Your task to perform on an android device: Open Reddit.com Image 0: 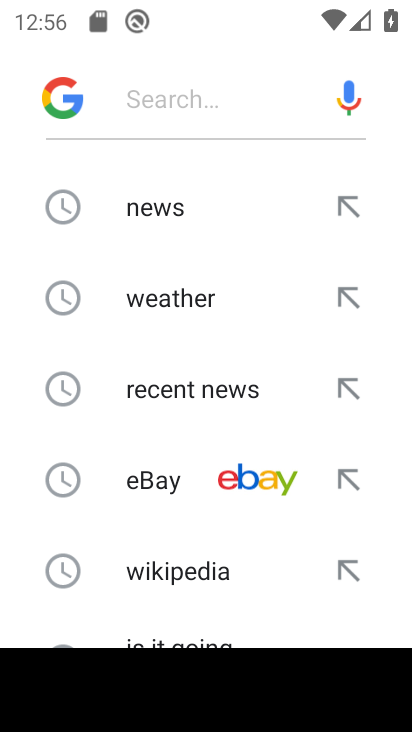
Step 0: press home button
Your task to perform on an android device: Open Reddit.com Image 1: 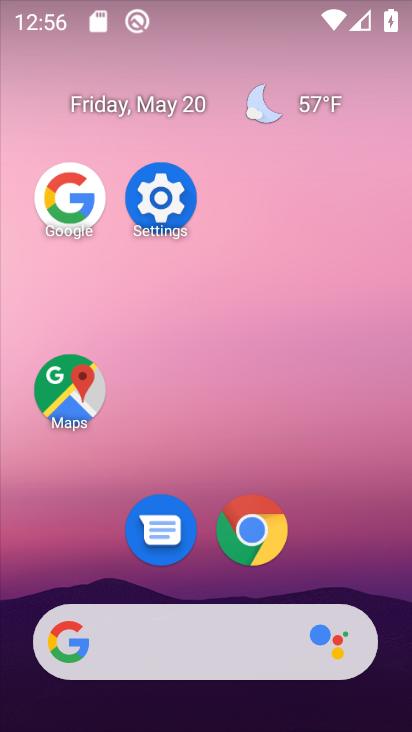
Step 1: click (248, 547)
Your task to perform on an android device: Open Reddit.com Image 2: 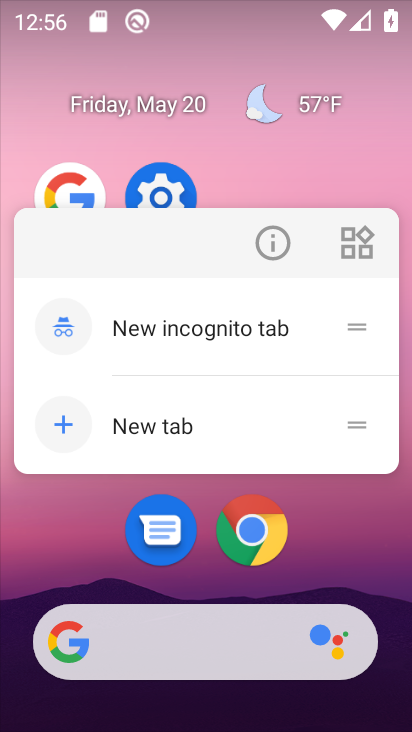
Step 2: click (256, 506)
Your task to perform on an android device: Open Reddit.com Image 3: 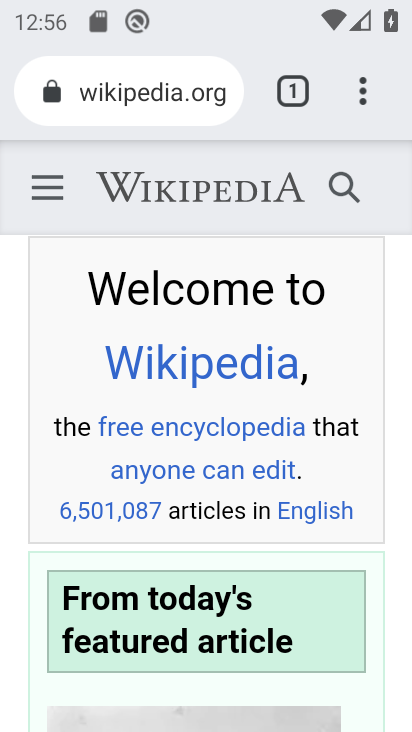
Step 3: click (288, 97)
Your task to perform on an android device: Open Reddit.com Image 4: 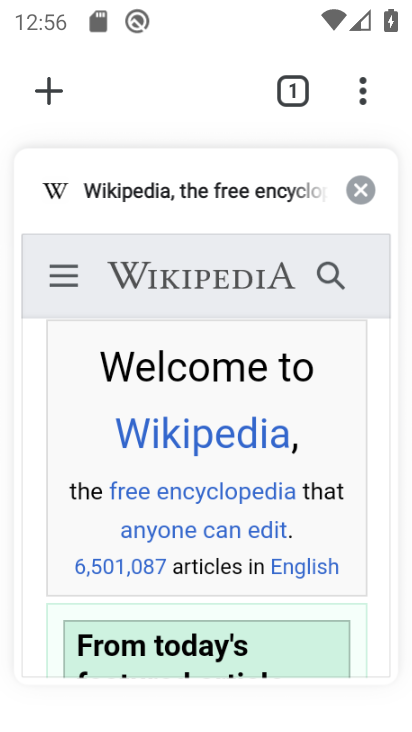
Step 4: click (58, 104)
Your task to perform on an android device: Open Reddit.com Image 5: 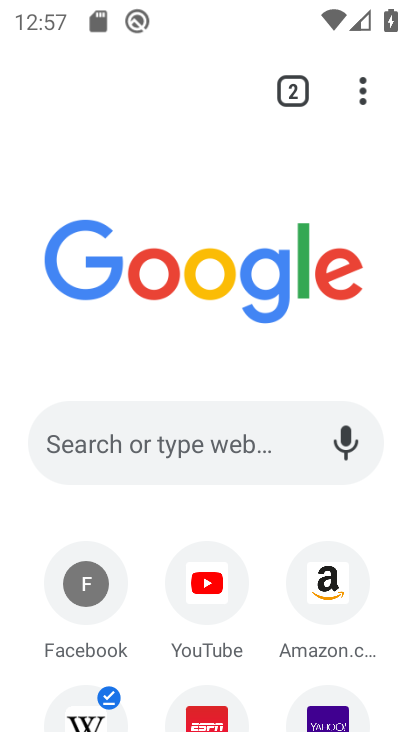
Step 5: click (178, 431)
Your task to perform on an android device: Open Reddit.com Image 6: 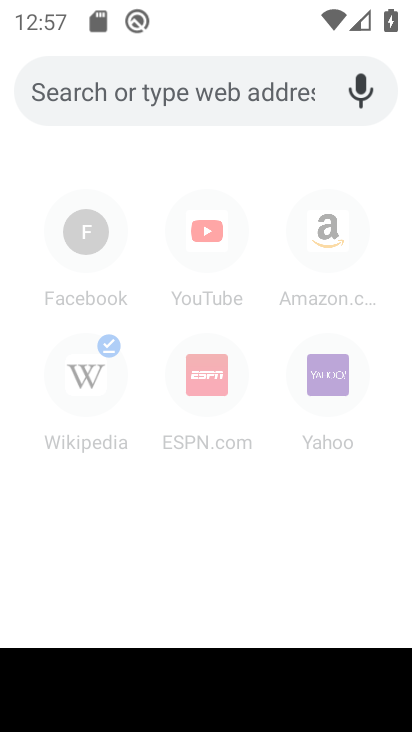
Step 6: type "reddit"
Your task to perform on an android device: Open Reddit.com Image 7: 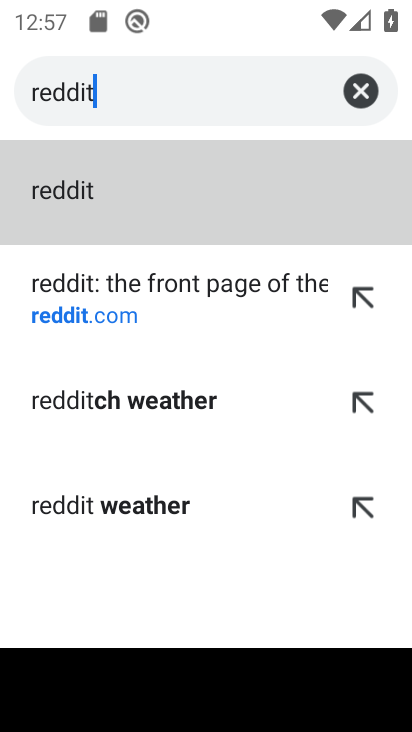
Step 7: click (122, 314)
Your task to perform on an android device: Open Reddit.com Image 8: 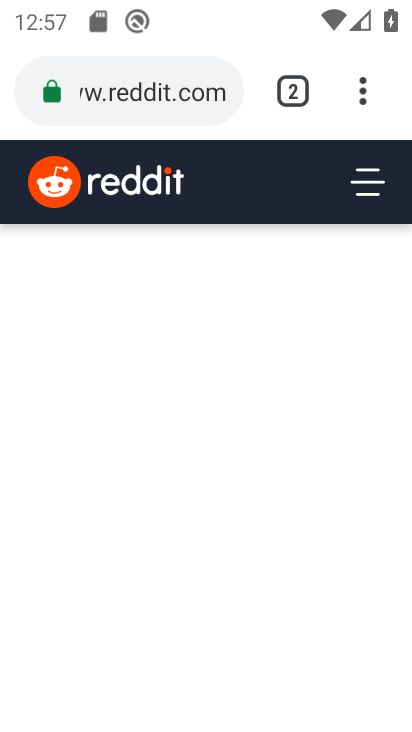
Step 8: task complete